Your task to perform on an android device: open app "Chime – Mobile Banking" (install if not already installed) Image 0: 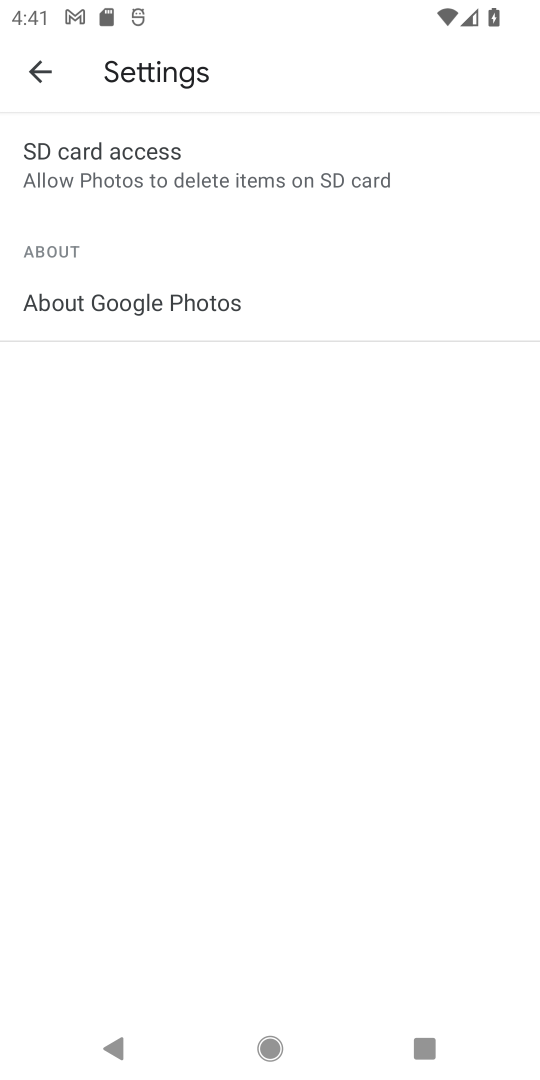
Step 0: press back button
Your task to perform on an android device: open app "Chime – Mobile Banking" (install if not already installed) Image 1: 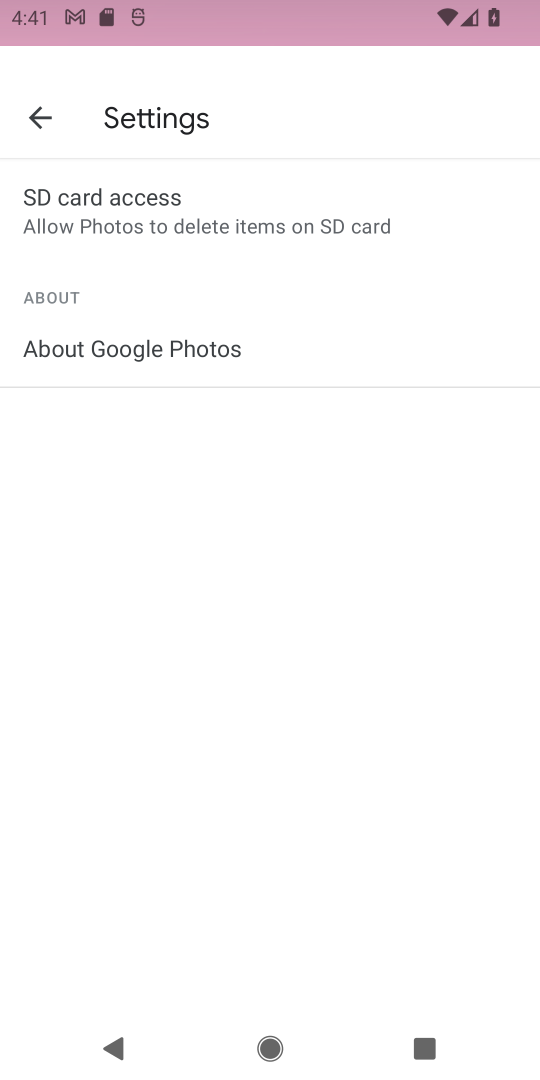
Step 1: press back button
Your task to perform on an android device: open app "Chime – Mobile Banking" (install if not already installed) Image 2: 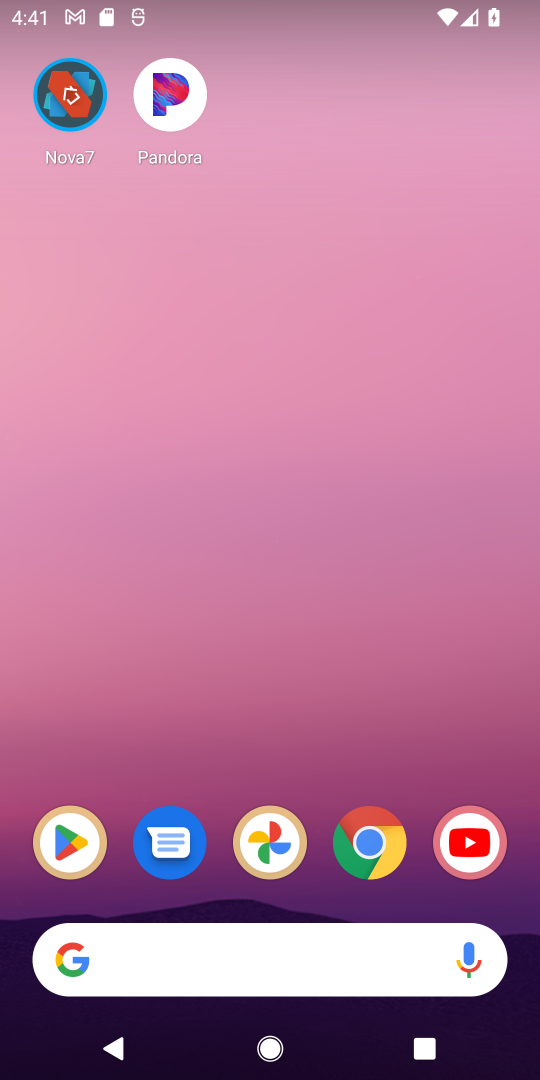
Step 2: drag from (250, 428) to (203, 253)
Your task to perform on an android device: open app "Chime – Mobile Banking" (install if not already installed) Image 3: 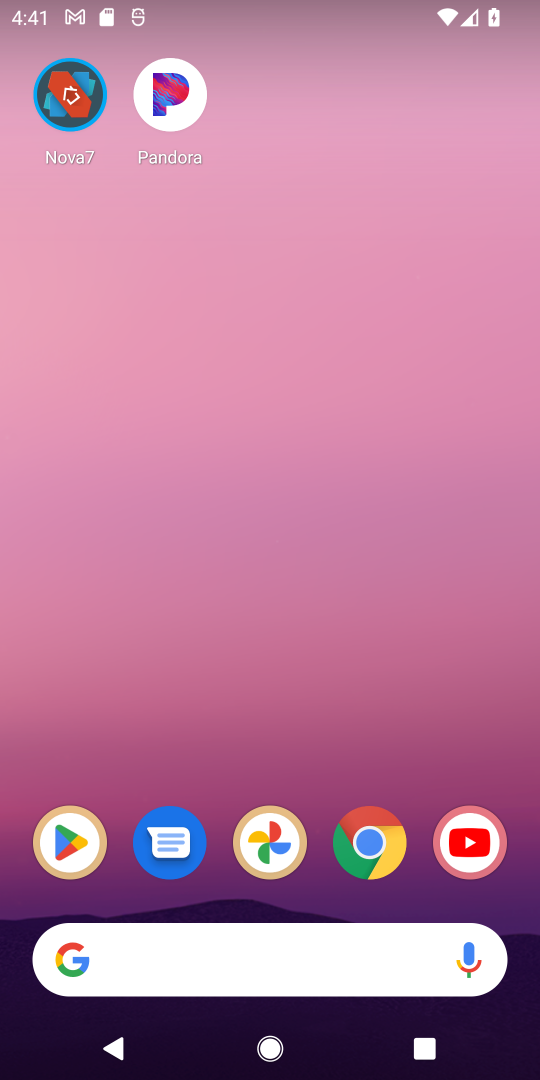
Step 3: drag from (343, 926) to (249, 320)
Your task to perform on an android device: open app "Chime – Mobile Banking" (install if not already installed) Image 4: 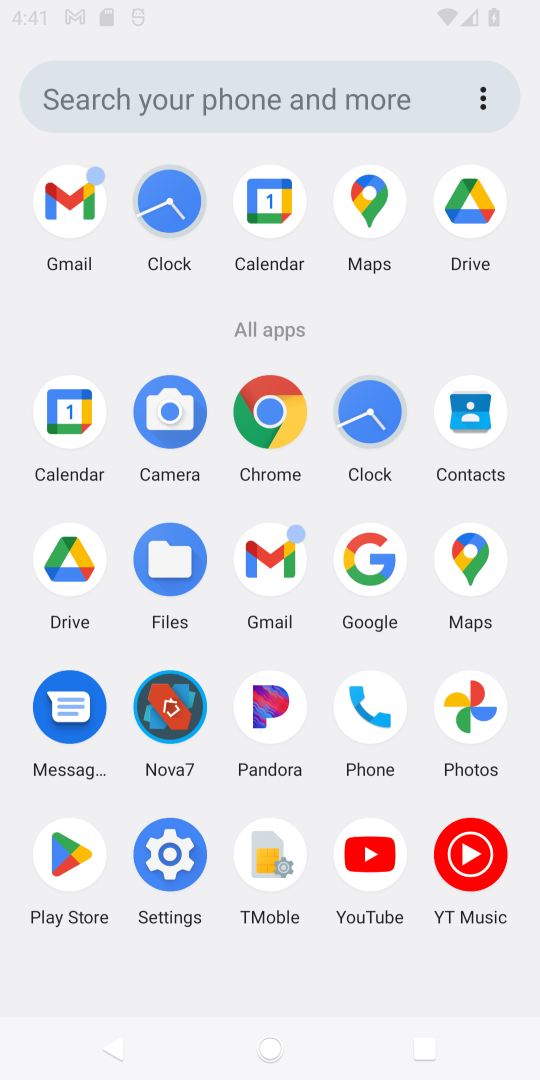
Step 4: drag from (293, 852) to (197, 253)
Your task to perform on an android device: open app "Chime – Mobile Banking" (install if not already installed) Image 5: 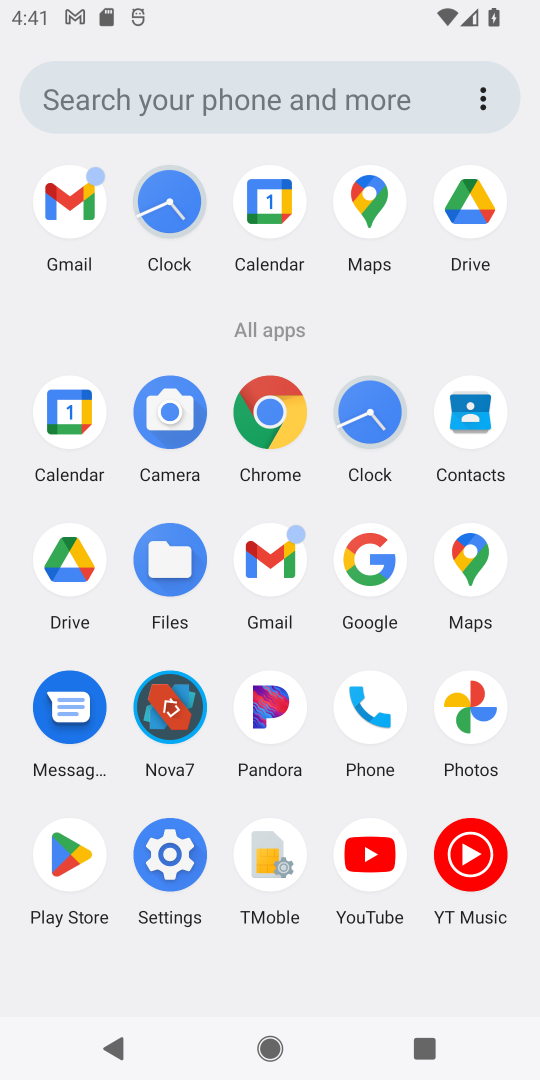
Step 5: click (60, 862)
Your task to perform on an android device: open app "Chime – Mobile Banking" (install if not already installed) Image 6: 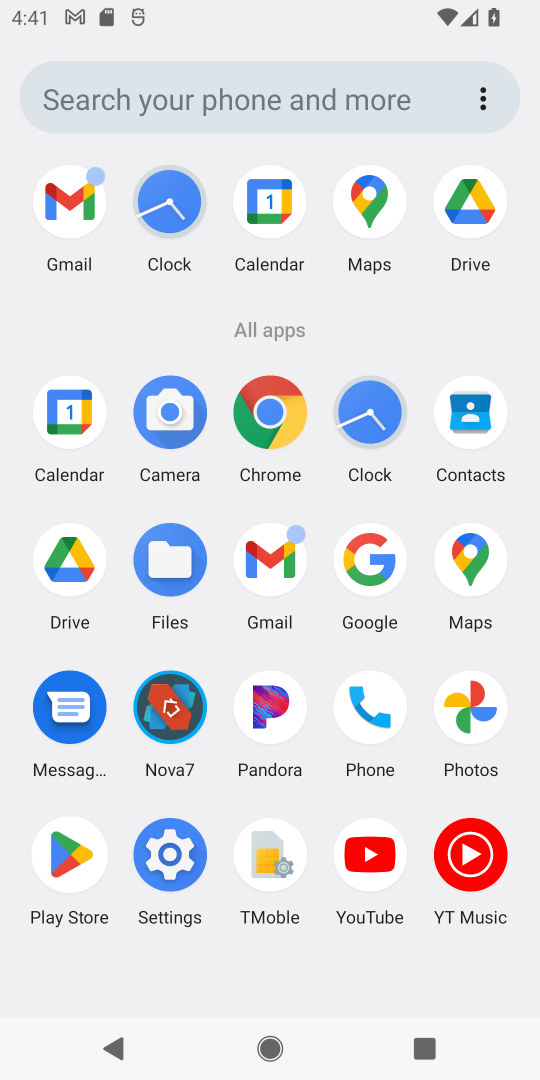
Step 6: click (60, 862)
Your task to perform on an android device: open app "Chime – Mobile Banking" (install if not already installed) Image 7: 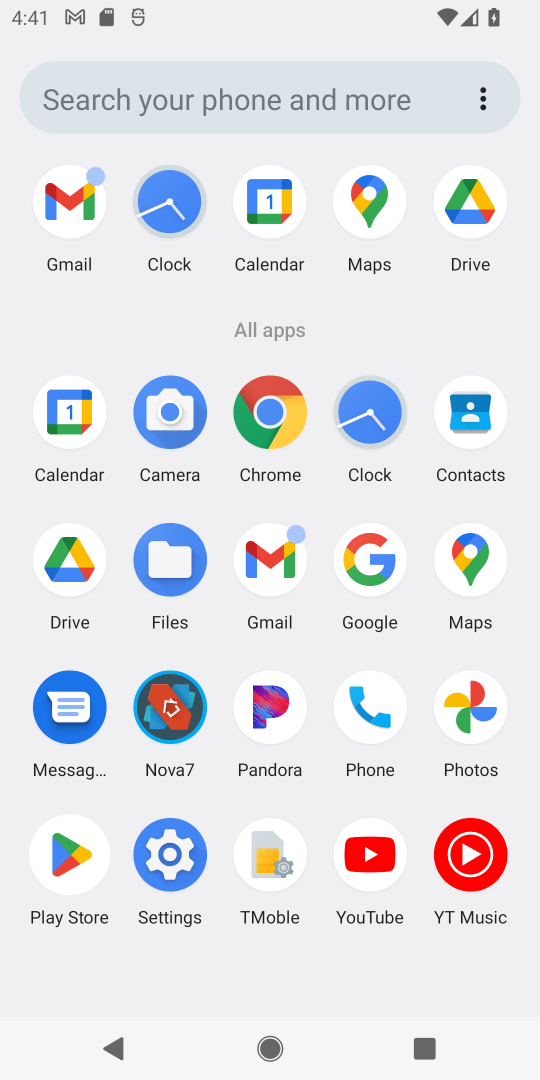
Step 7: click (60, 864)
Your task to perform on an android device: open app "Chime – Mobile Banking" (install if not already installed) Image 8: 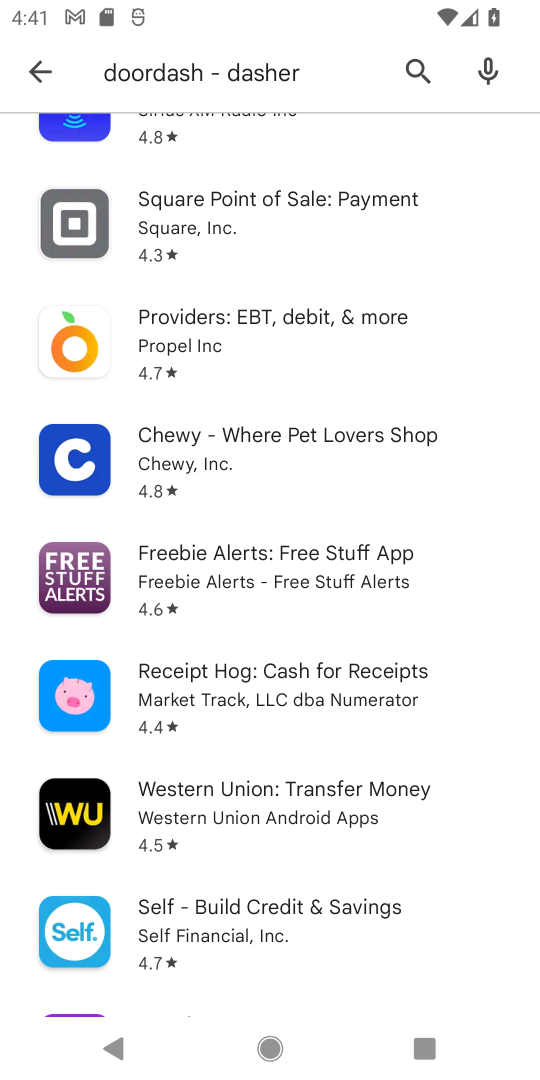
Step 8: click (33, 143)
Your task to perform on an android device: open app "Chime – Mobile Banking" (install if not already installed) Image 9: 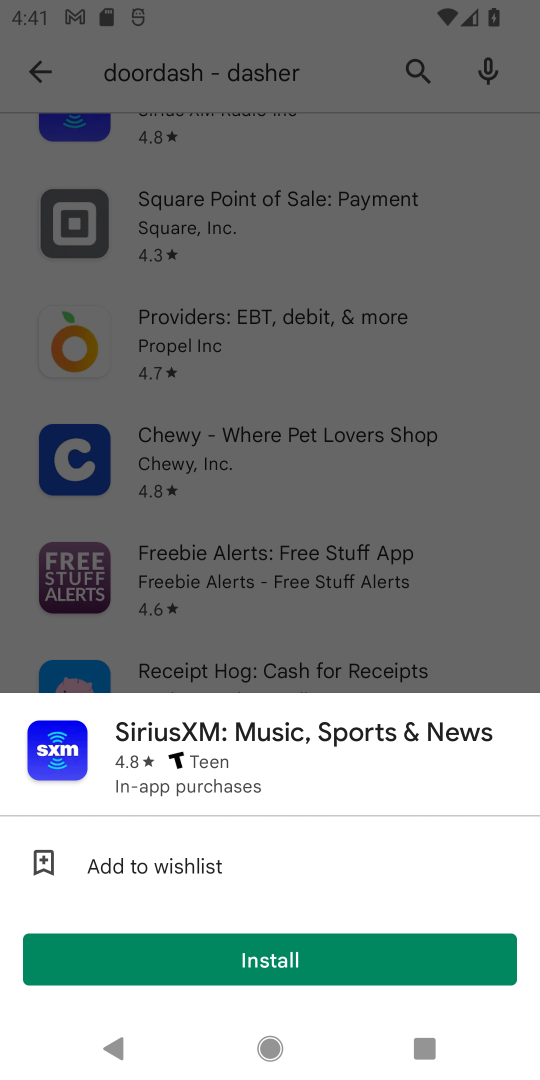
Step 9: click (29, 61)
Your task to perform on an android device: open app "Chime – Mobile Banking" (install if not already installed) Image 10: 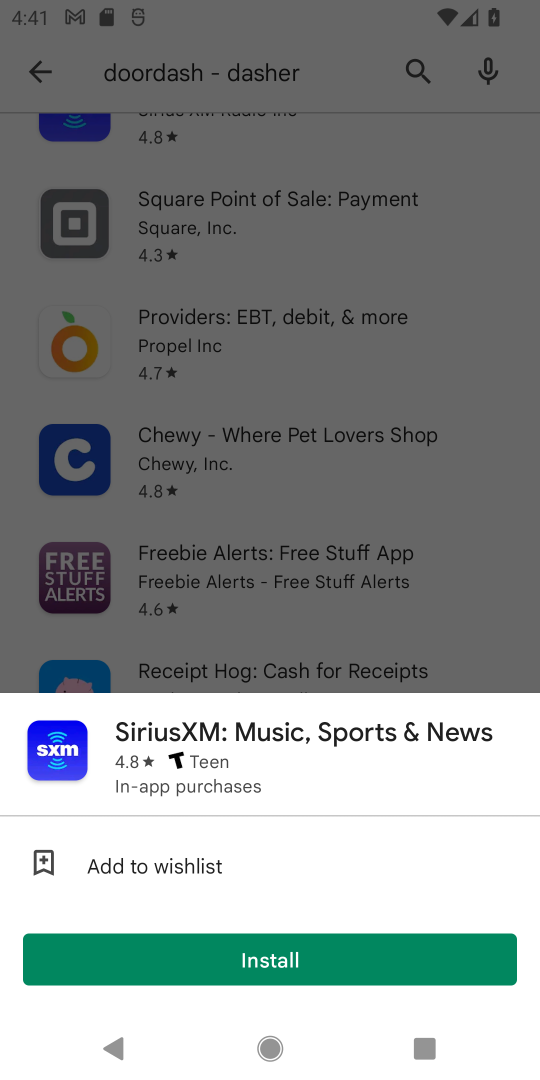
Step 10: click (32, 66)
Your task to perform on an android device: open app "Chime – Mobile Banking" (install if not already installed) Image 11: 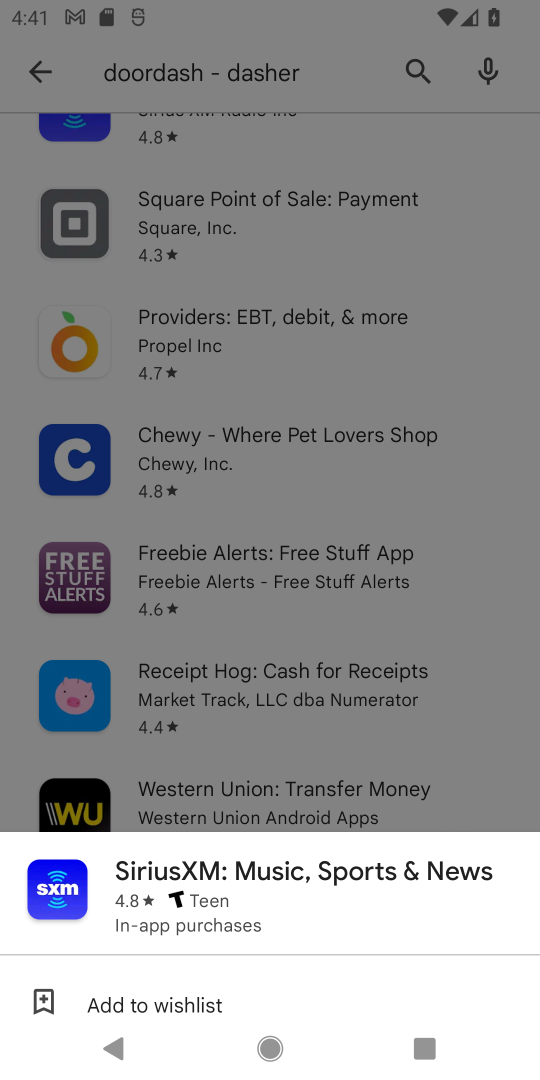
Step 11: click (41, 78)
Your task to perform on an android device: open app "Chime – Mobile Banking" (install if not already installed) Image 12: 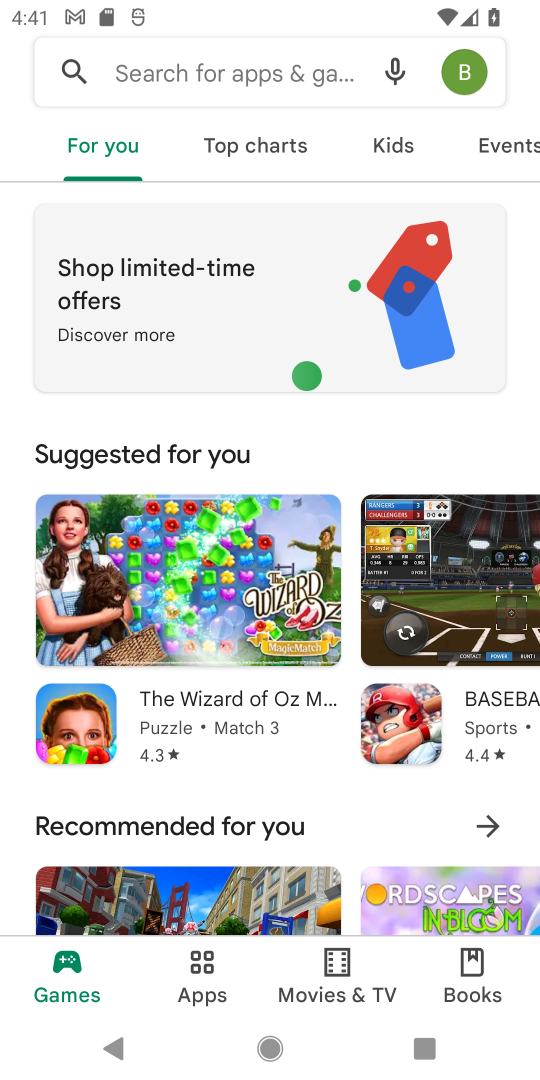
Step 12: click (127, 82)
Your task to perform on an android device: open app "Chime – Mobile Banking" (install if not already installed) Image 13: 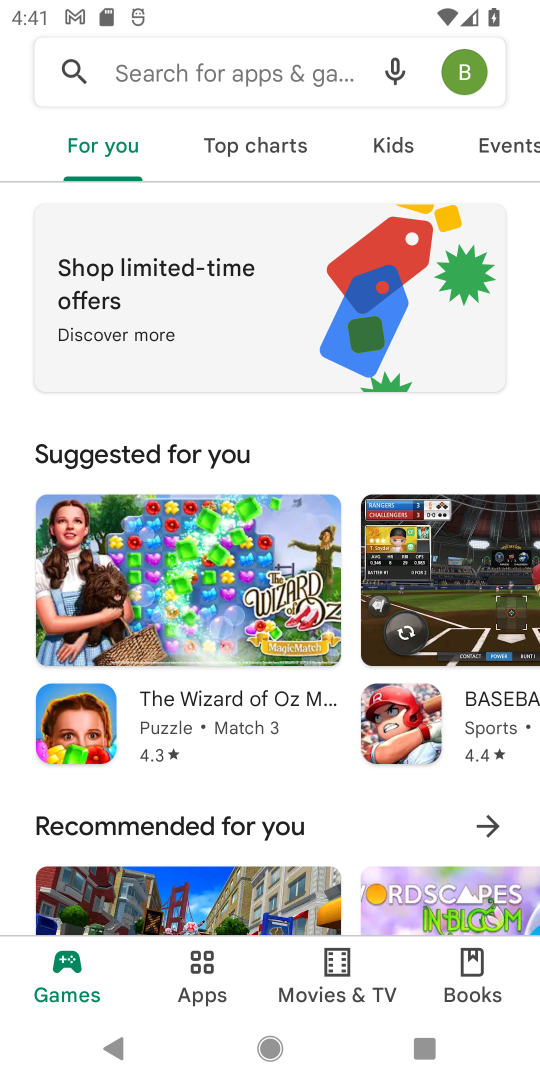
Step 13: click (169, 50)
Your task to perform on an android device: open app "Chime – Mobile Banking" (install if not already installed) Image 14: 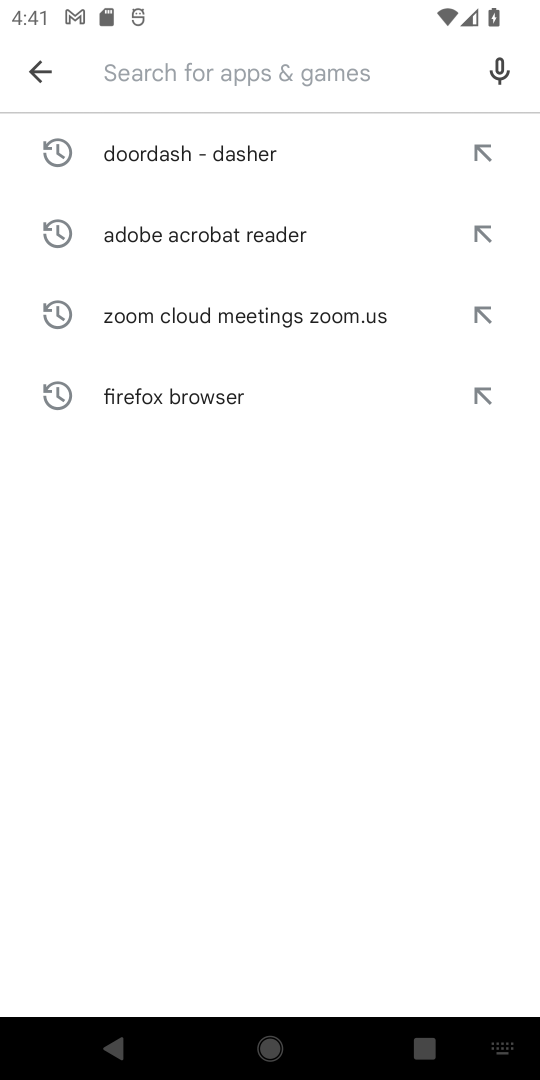
Step 14: click (171, 51)
Your task to perform on an android device: open app "Chime – Mobile Banking" (install if not already installed) Image 15: 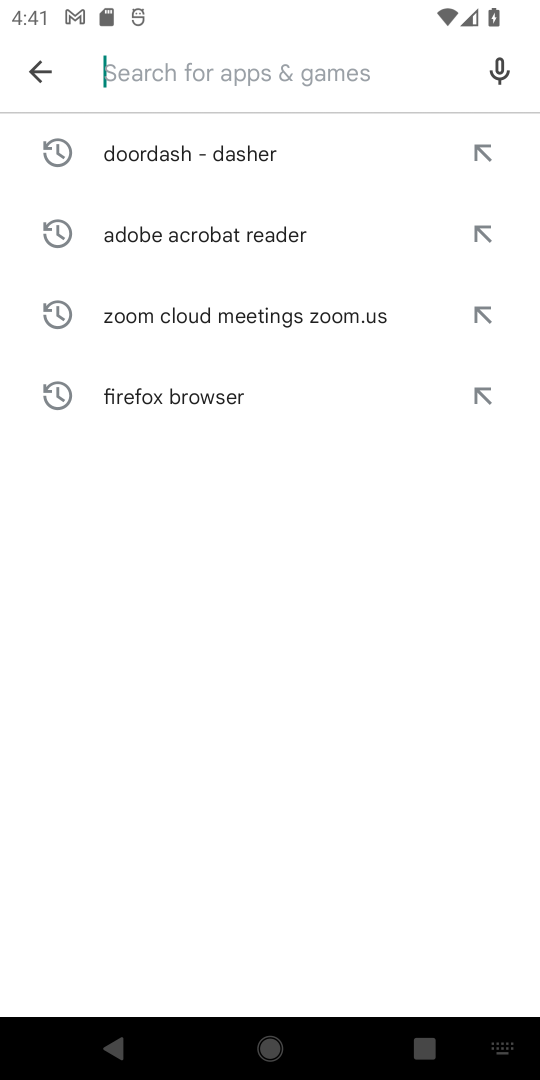
Step 15: click (171, 55)
Your task to perform on an android device: open app "Chime – Mobile Banking" (install if not already installed) Image 16: 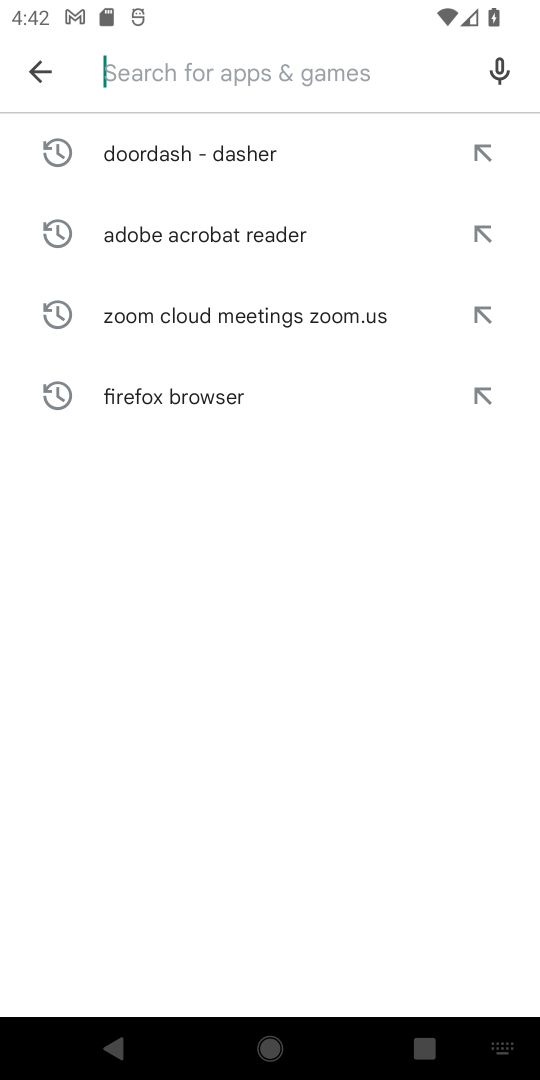
Step 16: type "Chime - Mobile Banking"
Your task to perform on an android device: open app "Chime – Mobile Banking" (install if not already installed) Image 17: 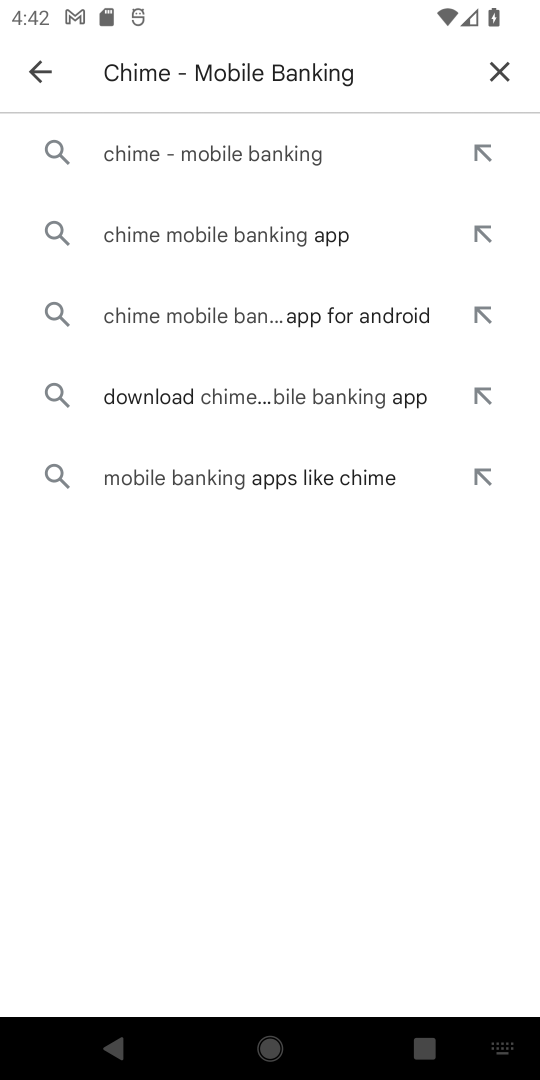
Step 17: click (239, 152)
Your task to perform on an android device: open app "Chime – Mobile Banking" (install if not already installed) Image 18: 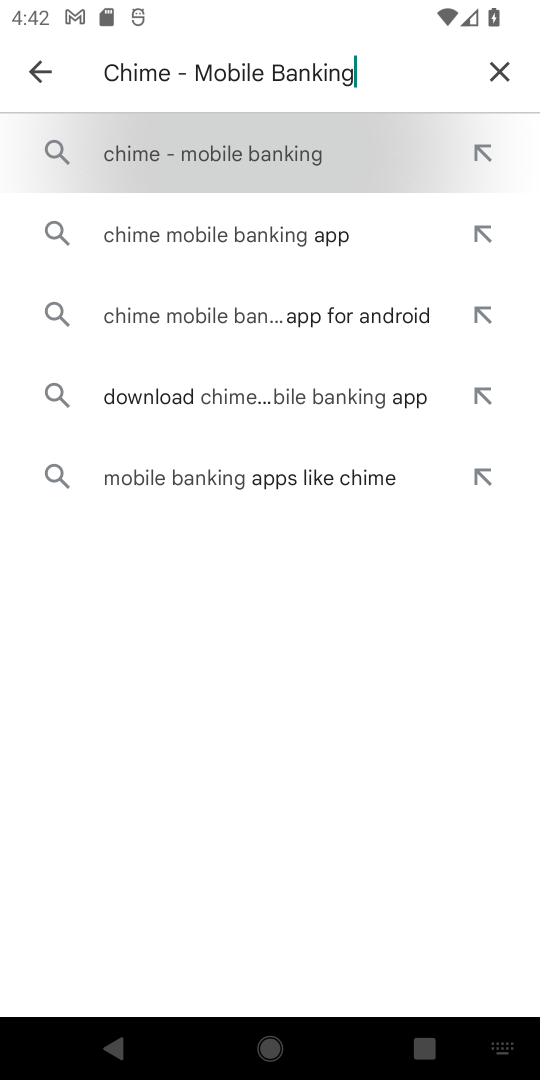
Step 18: click (221, 133)
Your task to perform on an android device: open app "Chime – Mobile Banking" (install if not already installed) Image 19: 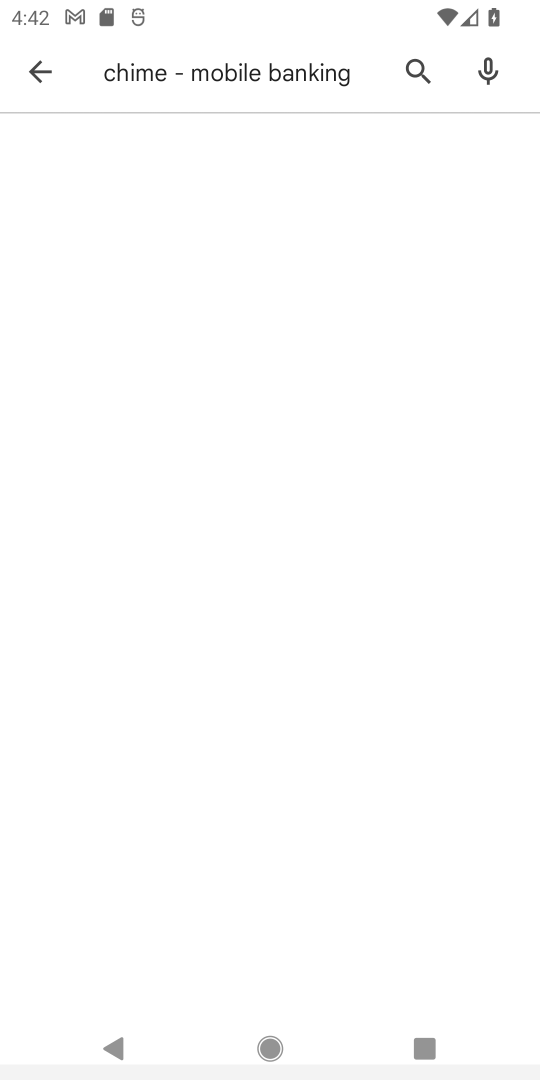
Step 19: click (215, 139)
Your task to perform on an android device: open app "Chime – Mobile Banking" (install if not already installed) Image 20: 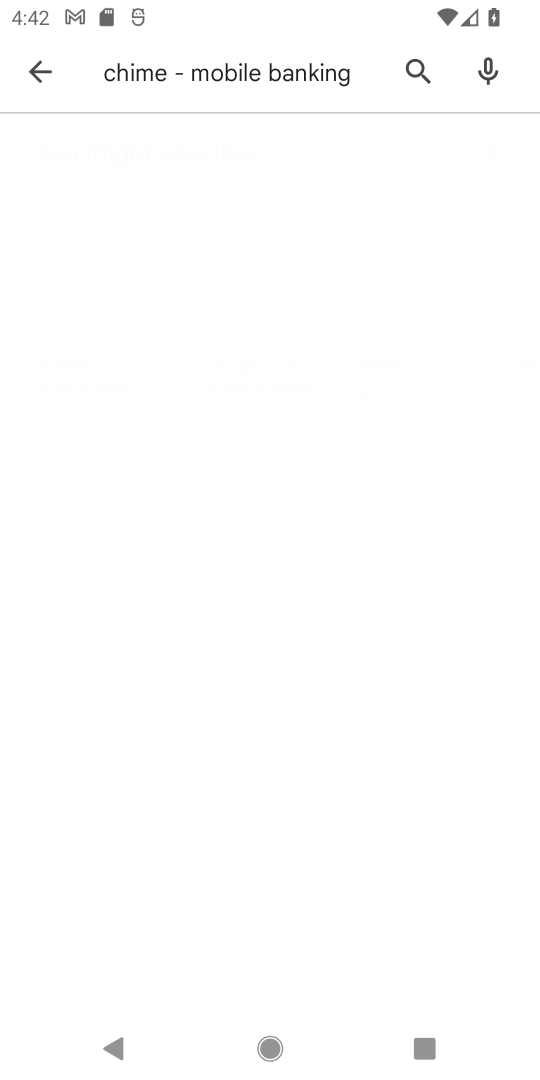
Step 20: click (217, 138)
Your task to perform on an android device: open app "Chime – Mobile Banking" (install if not already installed) Image 21: 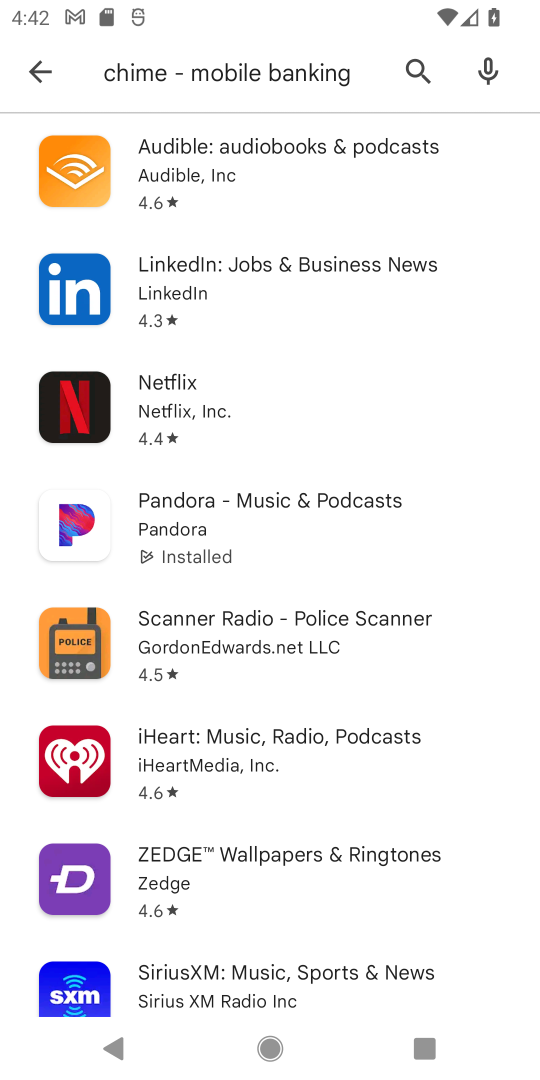
Step 21: task complete